Your task to perform on an android device: open a bookmark in the chrome app Image 0: 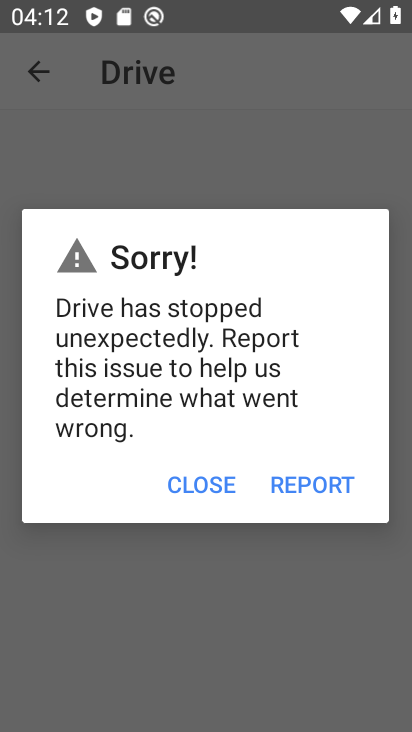
Step 0: press home button
Your task to perform on an android device: open a bookmark in the chrome app Image 1: 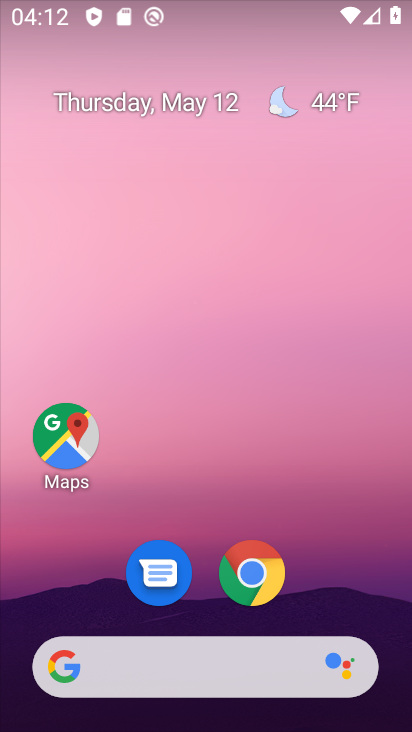
Step 1: click (250, 569)
Your task to perform on an android device: open a bookmark in the chrome app Image 2: 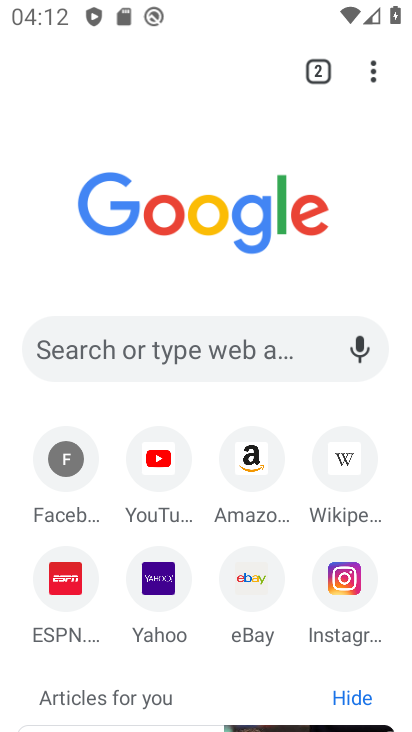
Step 2: click (373, 76)
Your task to perform on an android device: open a bookmark in the chrome app Image 3: 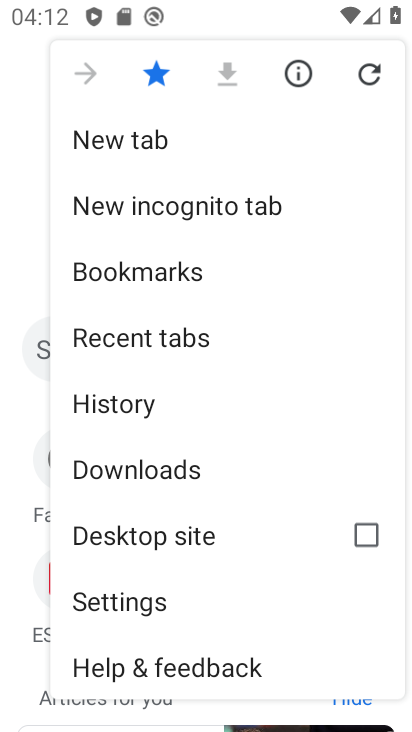
Step 3: click (133, 276)
Your task to perform on an android device: open a bookmark in the chrome app Image 4: 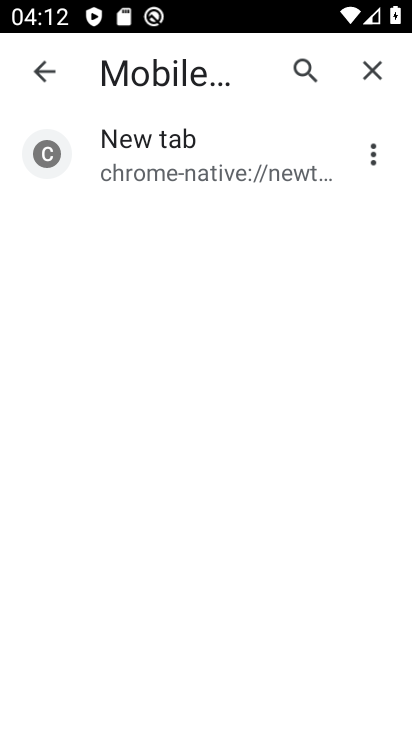
Step 4: task complete